Your task to perform on an android device: Search for sushi restaurants on Maps Image 0: 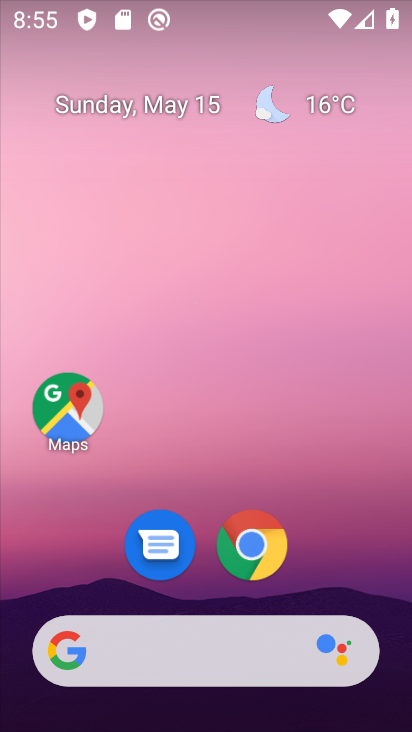
Step 0: click (62, 411)
Your task to perform on an android device: Search for sushi restaurants on Maps Image 1: 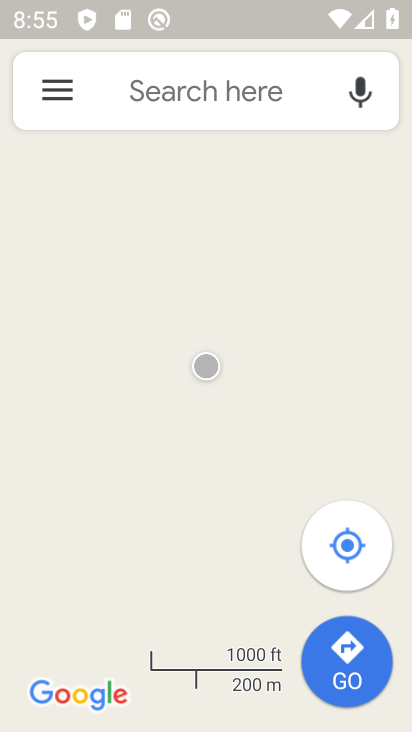
Step 1: click (184, 80)
Your task to perform on an android device: Search for sushi restaurants on Maps Image 2: 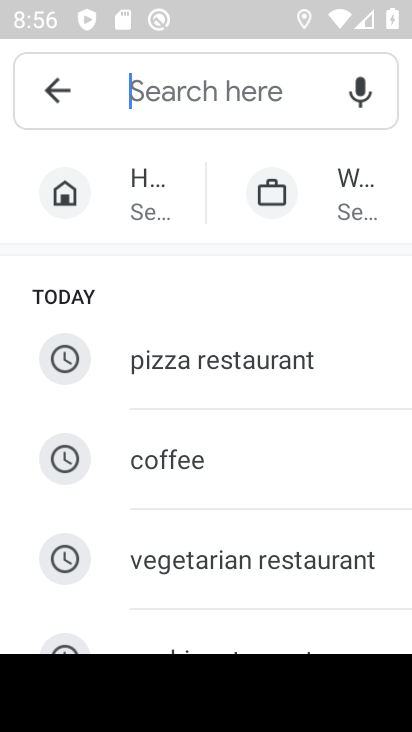
Step 2: type "sushi restaurants"
Your task to perform on an android device: Search for sushi restaurants on Maps Image 3: 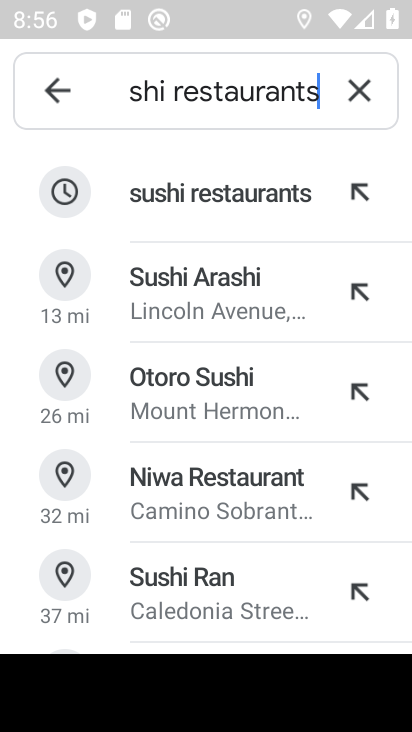
Step 3: click (199, 195)
Your task to perform on an android device: Search for sushi restaurants on Maps Image 4: 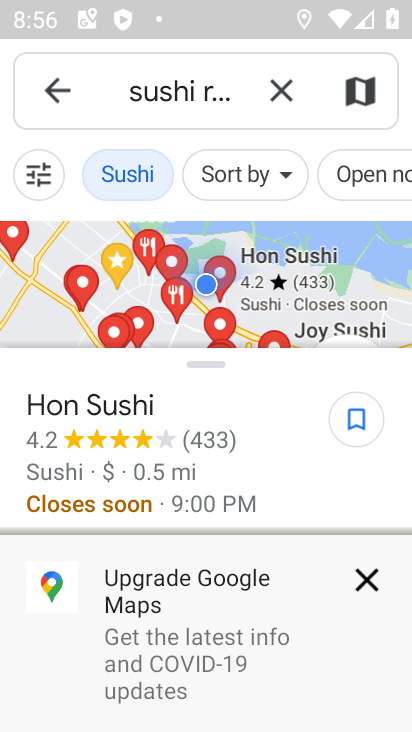
Step 4: click (366, 583)
Your task to perform on an android device: Search for sushi restaurants on Maps Image 5: 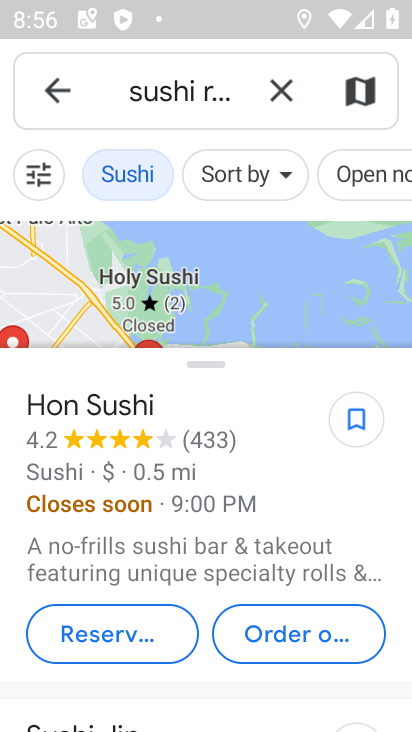
Step 5: task complete